Your task to perform on an android device: Go to ESPN.com Image 0: 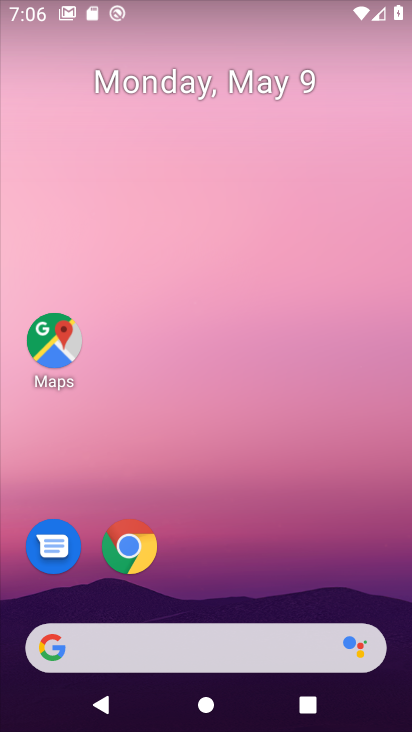
Step 0: click (146, 560)
Your task to perform on an android device: Go to ESPN.com Image 1: 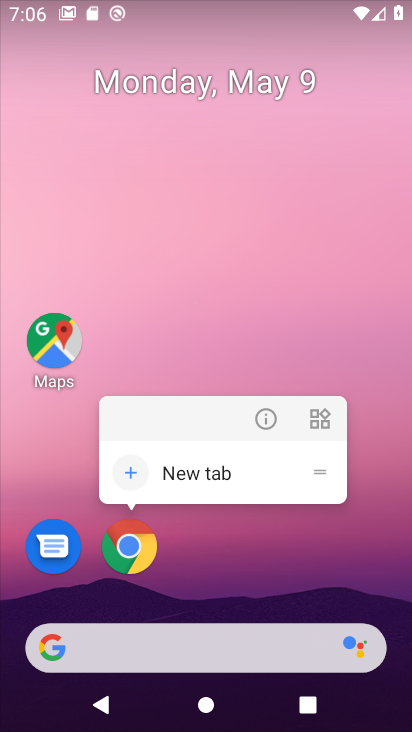
Step 1: click (122, 568)
Your task to perform on an android device: Go to ESPN.com Image 2: 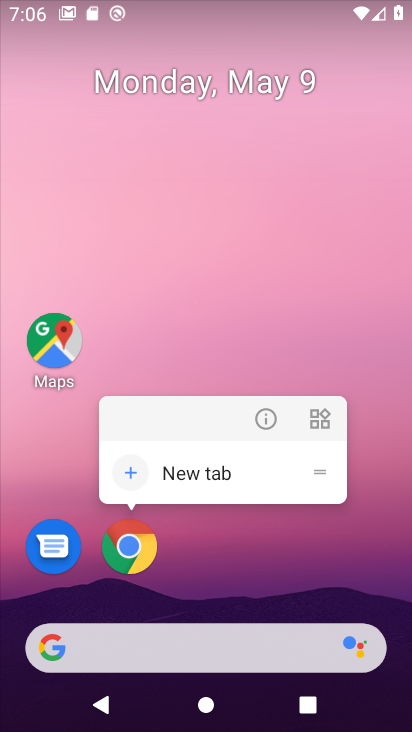
Step 2: click (130, 554)
Your task to perform on an android device: Go to ESPN.com Image 3: 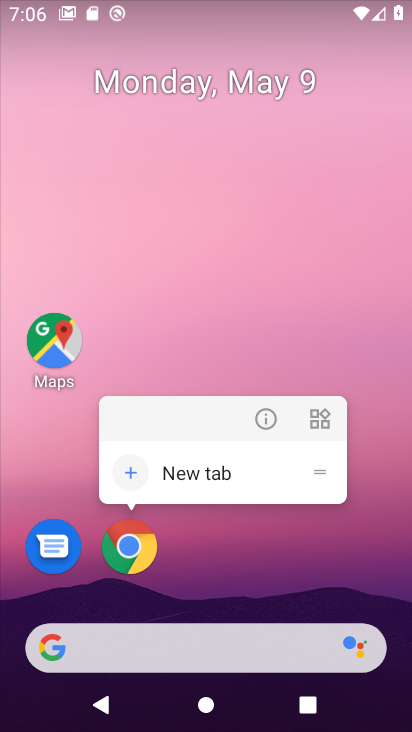
Step 3: click (135, 554)
Your task to perform on an android device: Go to ESPN.com Image 4: 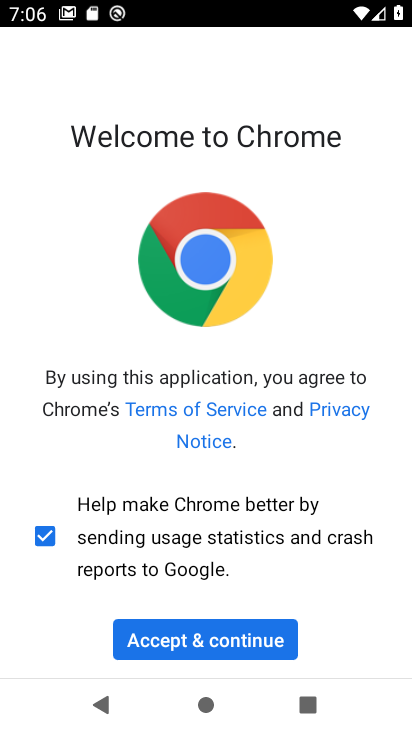
Step 4: click (250, 633)
Your task to perform on an android device: Go to ESPN.com Image 5: 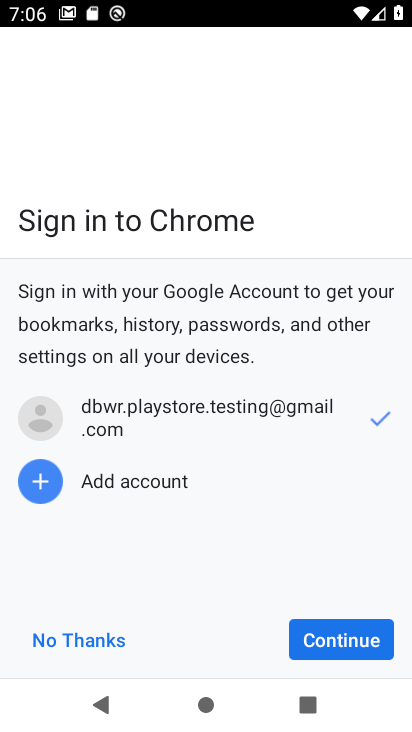
Step 5: click (336, 633)
Your task to perform on an android device: Go to ESPN.com Image 6: 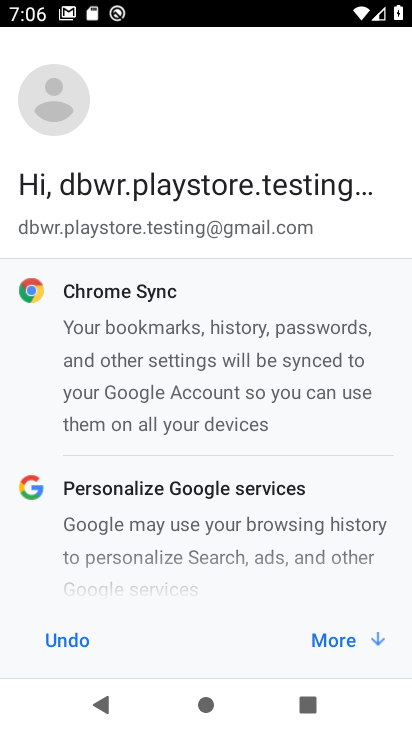
Step 6: click (336, 640)
Your task to perform on an android device: Go to ESPN.com Image 7: 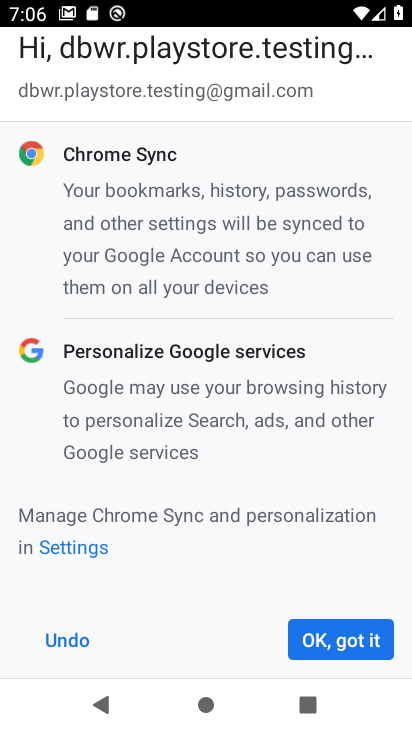
Step 7: click (336, 640)
Your task to perform on an android device: Go to ESPN.com Image 8: 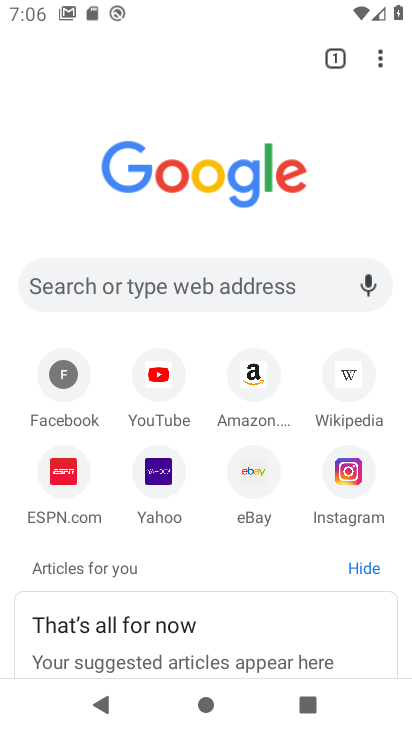
Step 8: click (179, 298)
Your task to perform on an android device: Go to ESPN.com Image 9: 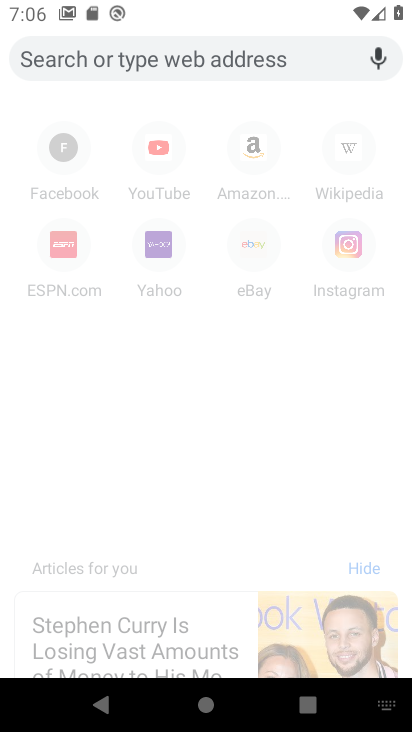
Step 9: type "ESPN.com"
Your task to perform on an android device: Go to ESPN.com Image 10: 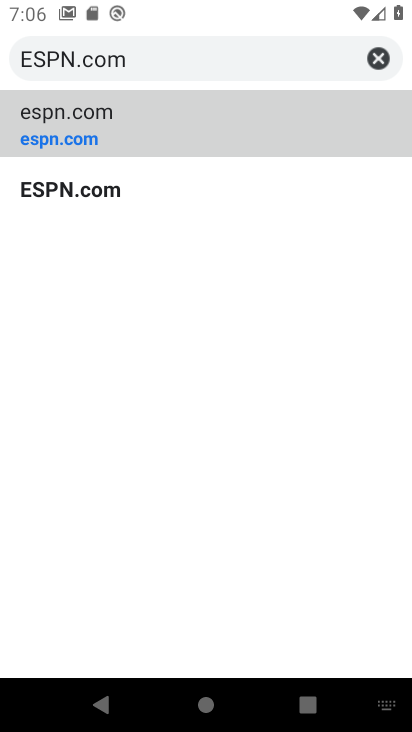
Step 10: click (43, 133)
Your task to perform on an android device: Go to ESPN.com Image 11: 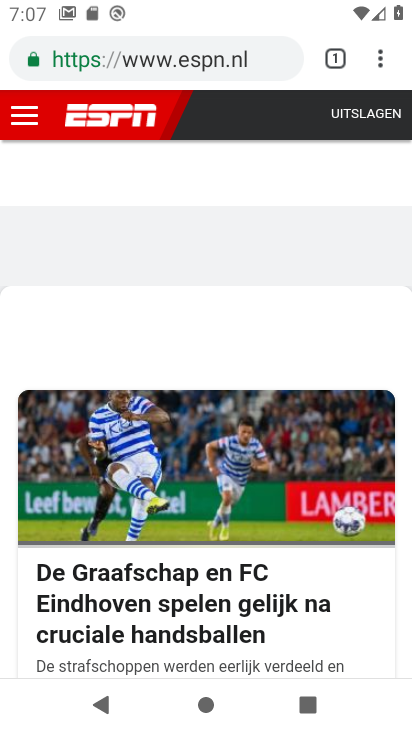
Step 11: task complete